Your task to perform on an android device: Open Maps and search for coffee Image 0: 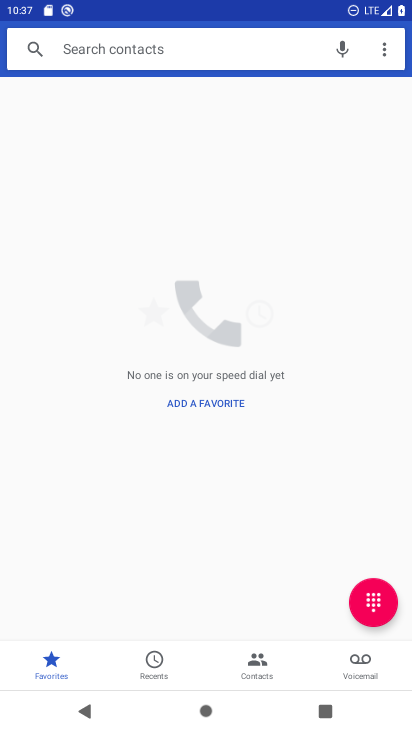
Step 0: press home button
Your task to perform on an android device: Open Maps and search for coffee Image 1: 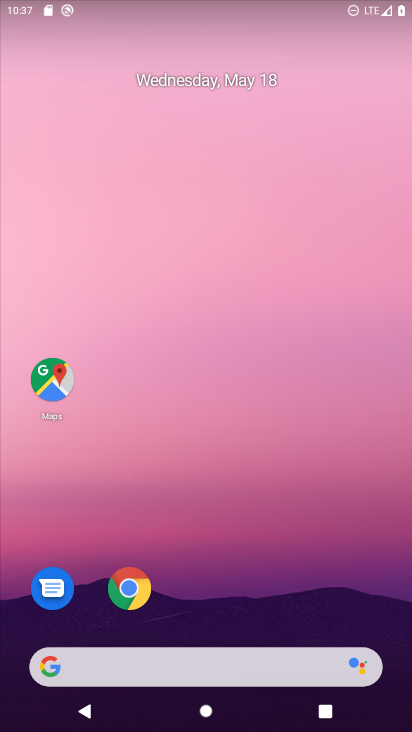
Step 1: click (56, 430)
Your task to perform on an android device: Open Maps and search for coffee Image 2: 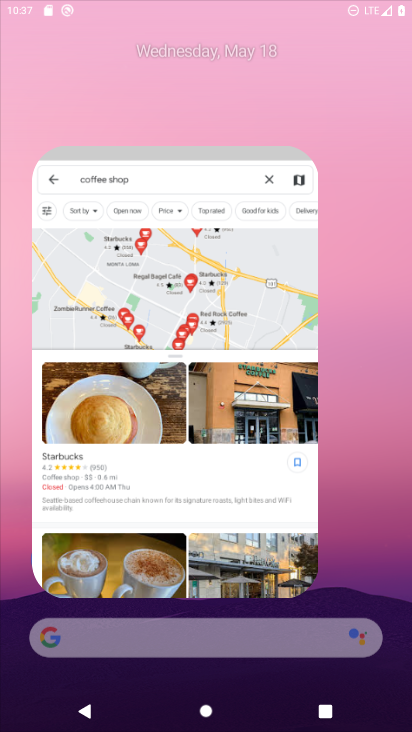
Step 2: click (54, 359)
Your task to perform on an android device: Open Maps and search for coffee Image 3: 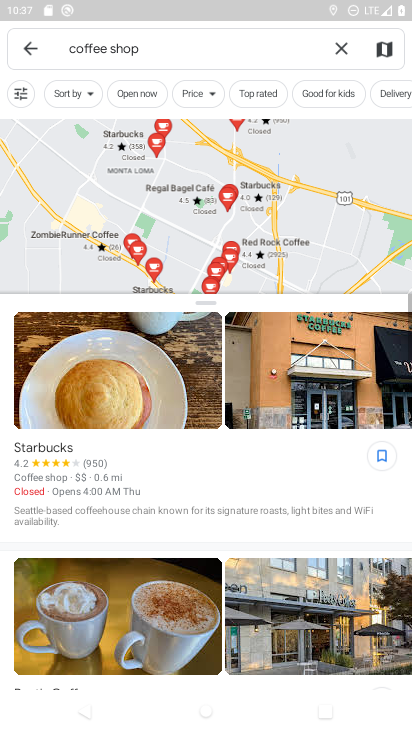
Step 3: click (354, 46)
Your task to perform on an android device: Open Maps and search for coffee Image 4: 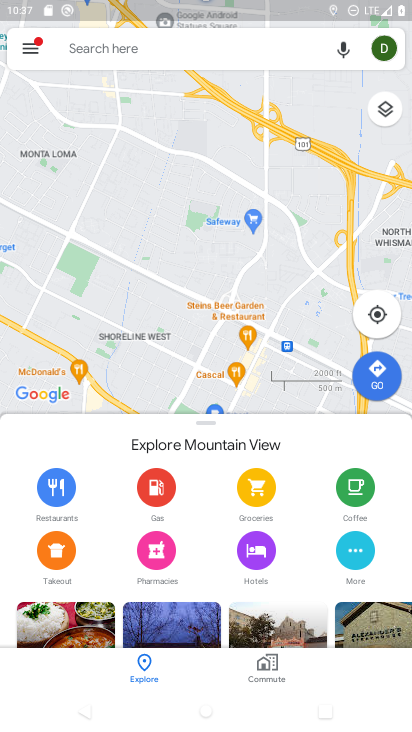
Step 4: click (89, 45)
Your task to perform on an android device: Open Maps and search for coffee Image 5: 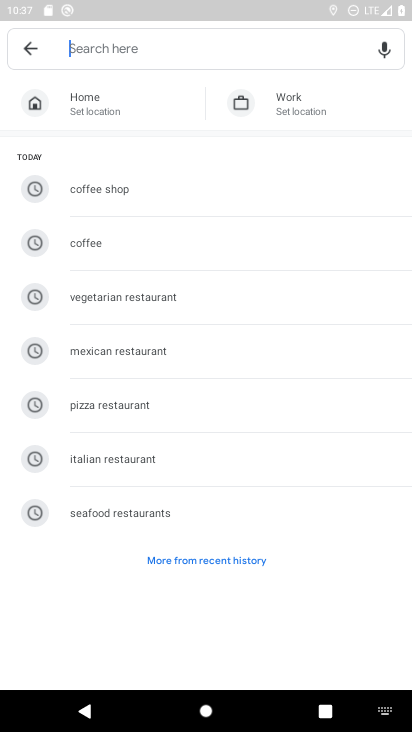
Step 5: type "coffee"
Your task to perform on an android device: Open Maps and search for coffee Image 6: 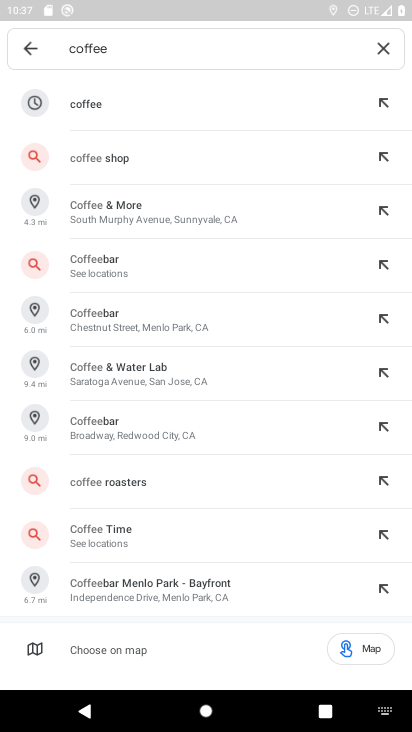
Step 6: click (96, 109)
Your task to perform on an android device: Open Maps and search for coffee Image 7: 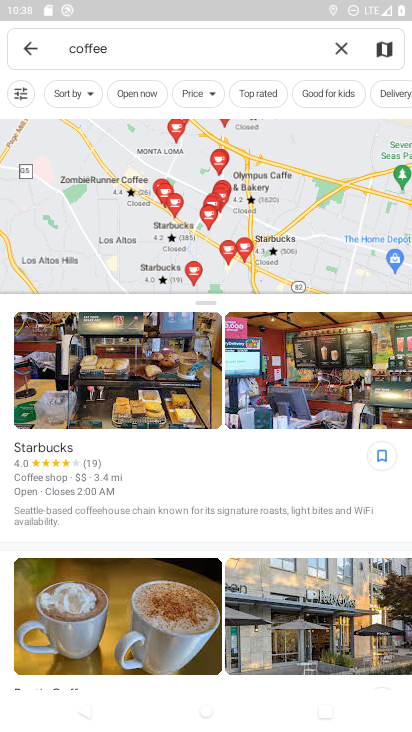
Step 7: task complete